Your task to perform on an android device: Show me popular games on the Play Store Image 0: 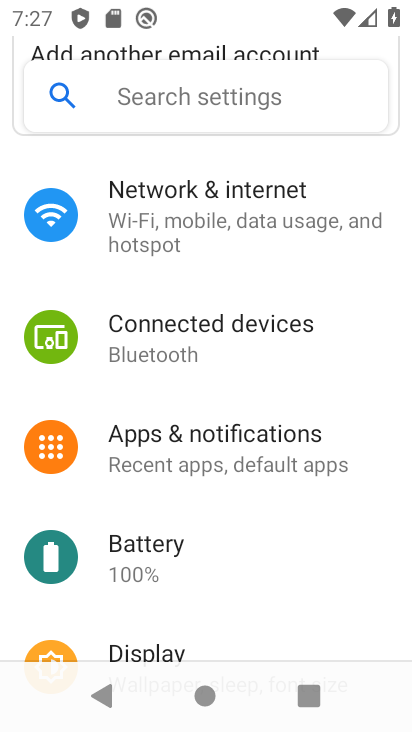
Step 0: press home button
Your task to perform on an android device: Show me popular games on the Play Store Image 1: 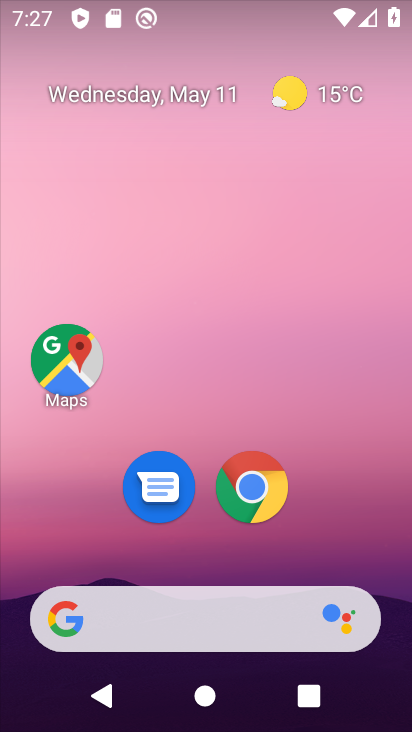
Step 1: drag from (229, 633) to (260, 167)
Your task to perform on an android device: Show me popular games on the Play Store Image 2: 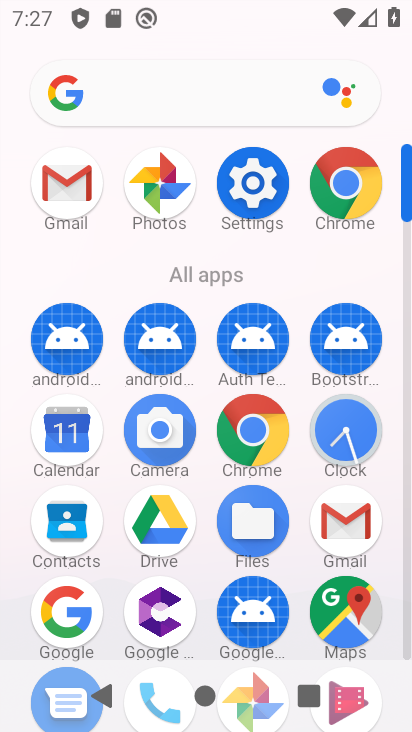
Step 2: drag from (119, 577) to (164, 334)
Your task to perform on an android device: Show me popular games on the Play Store Image 3: 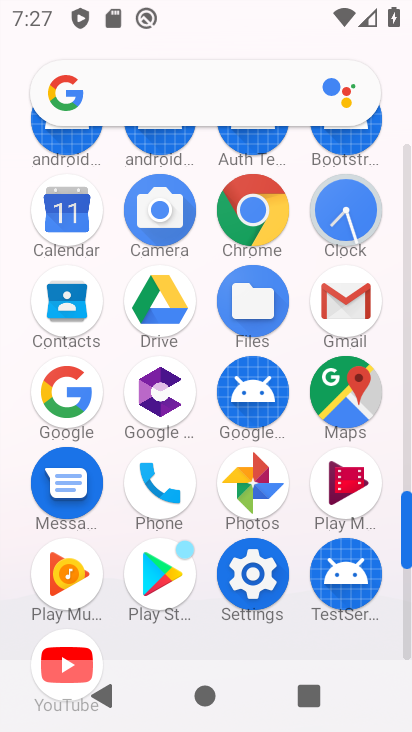
Step 3: click (169, 561)
Your task to perform on an android device: Show me popular games on the Play Store Image 4: 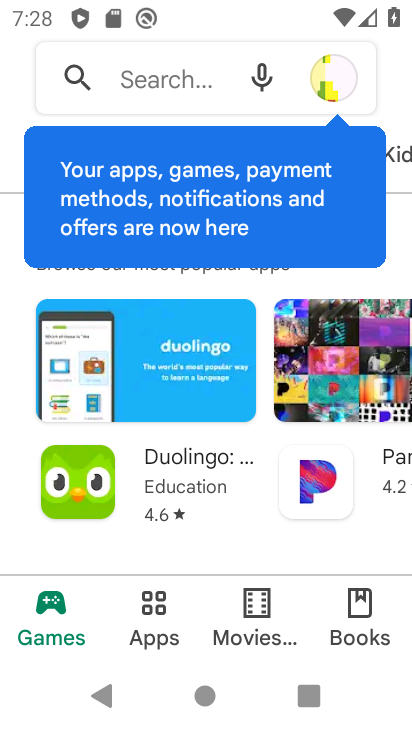
Step 4: click (148, 85)
Your task to perform on an android device: Show me popular games on the Play Store Image 5: 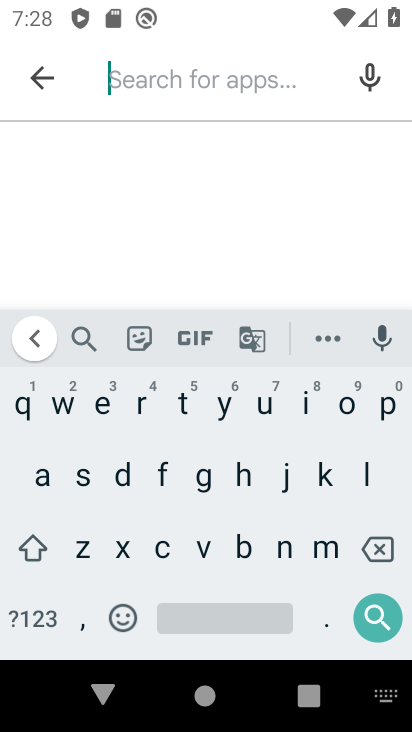
Step 5: click (390, 409)
Your task to perform on an android device: Show me popular games on the Play Store Image 6: 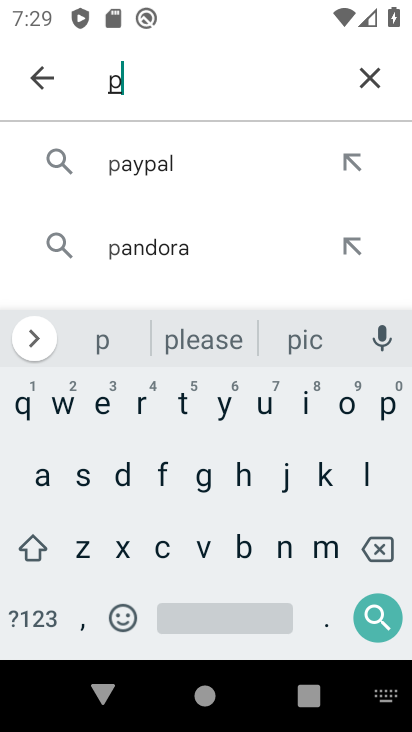
Step 6: click (341, 408)
Your task to perform on an android device: Show me popular games on the Play Store Image 7: 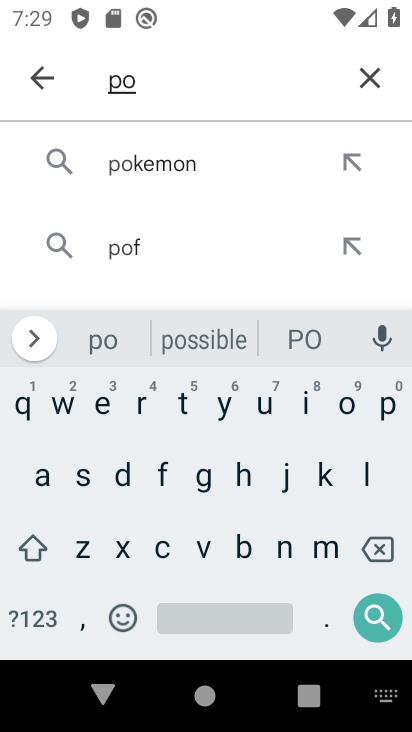
Step 7: click (392, 408)
Your task to perform on an android device: Show me popular games on the Play Store Image 8: 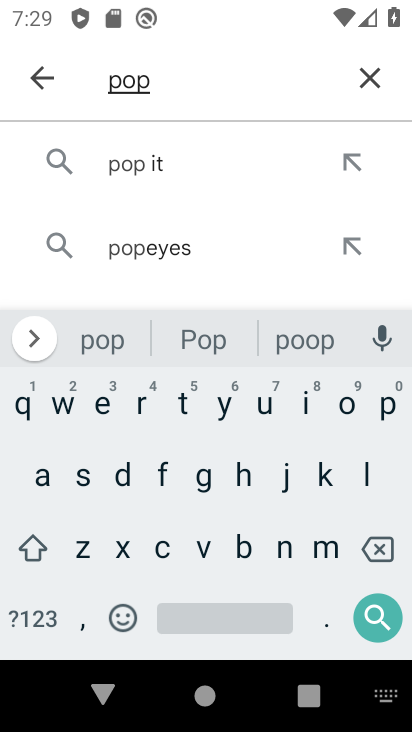
Step 8: click (268, 413)
Your task to perform on an android device: Show me popular games on the Play Store Image 9: 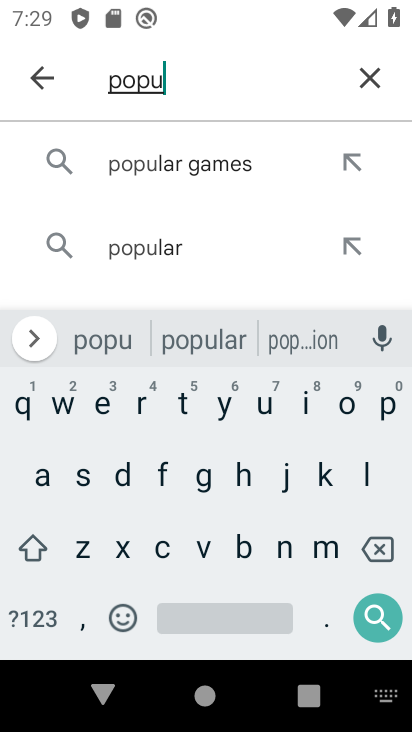
Step 9: click (200, 161)
Your task to perform on an android device: Show me popular games on the Play Store Image 10: 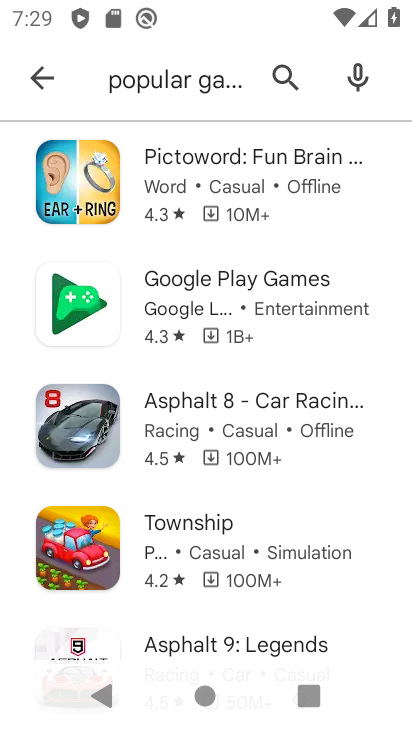
Step 10: task complete